Your task to perform on an android device: Open calendar and show me the second week of next month Image 0: 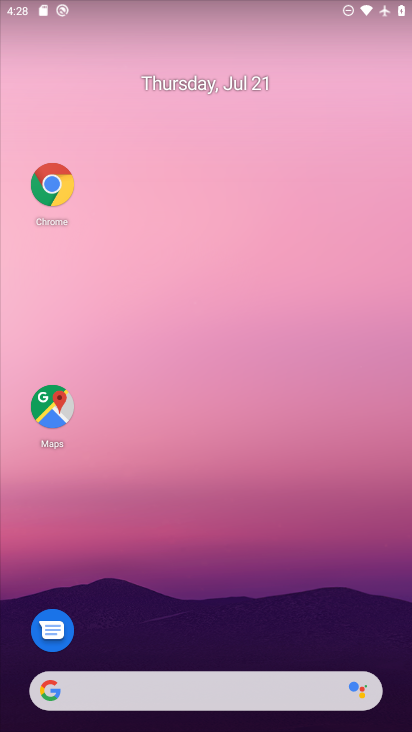
Step 0: drag from (222, 648) to (405, 404)
Your task to perform on an android device: Open calendar and show me the second week of next month Image 1: 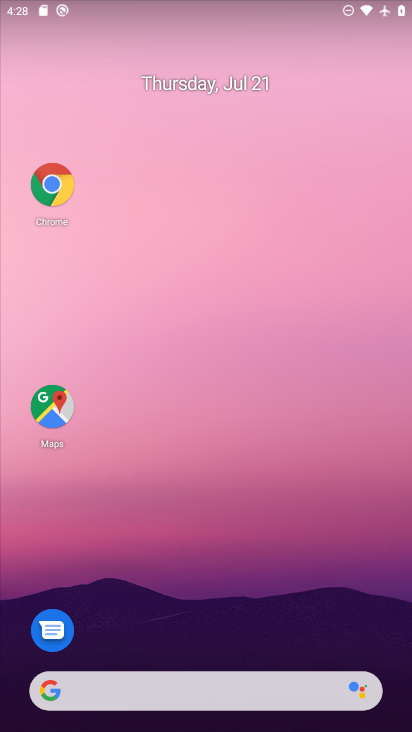
Step 1: drag from (230, 666) to (386, 11)
Your task to perform on an android device: Open calendar and show me the second week of next month Image 2: 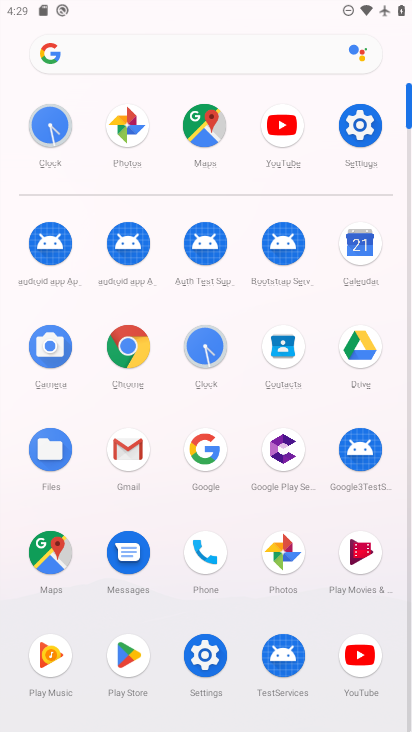
Step 2: click (350, 251)
Your task to perform on an android device: Open calendar and show me the second week of next month Image 3: 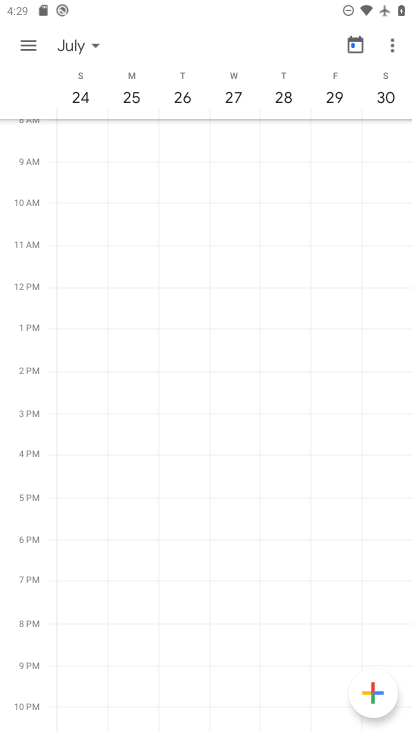
Step 3: drag from (374, 97) to (22, 73)
Your task to perform on an android device: Open calendar and show me the second week of next month Image 4: 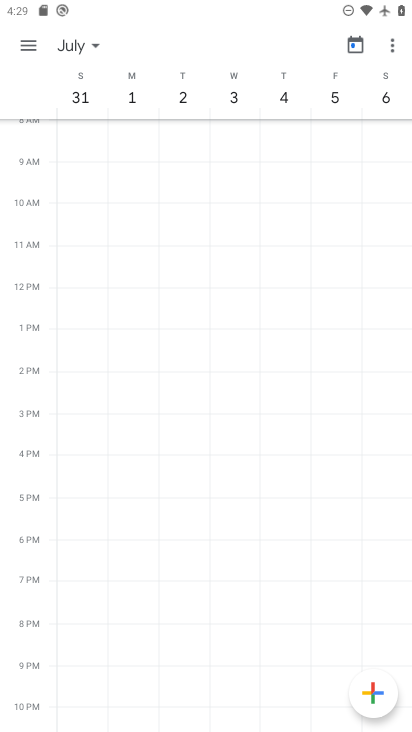
Step 4: drag from (350, 80) to (17, 61)
Your task to perform on an android device: Open calendar and show me the second week of next month Image 5: 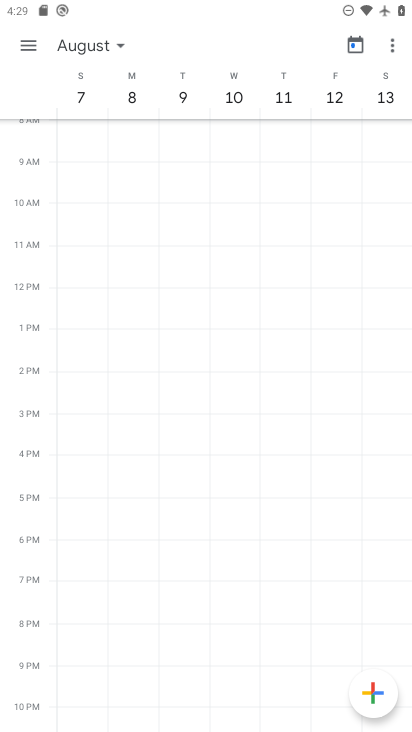
Step 5: click (356, 96)
Your task to perform on an android device: Open calendar and show me the second week of next month Image 6: 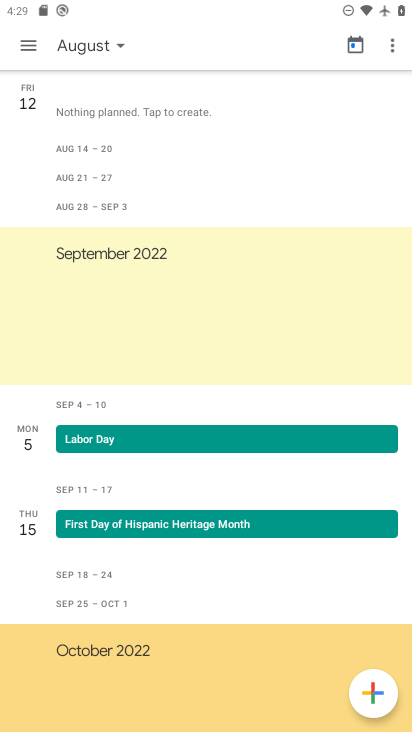
Step 6: task complete